Your task to perform on an android device: check the backup settings in the google photos Image 0: 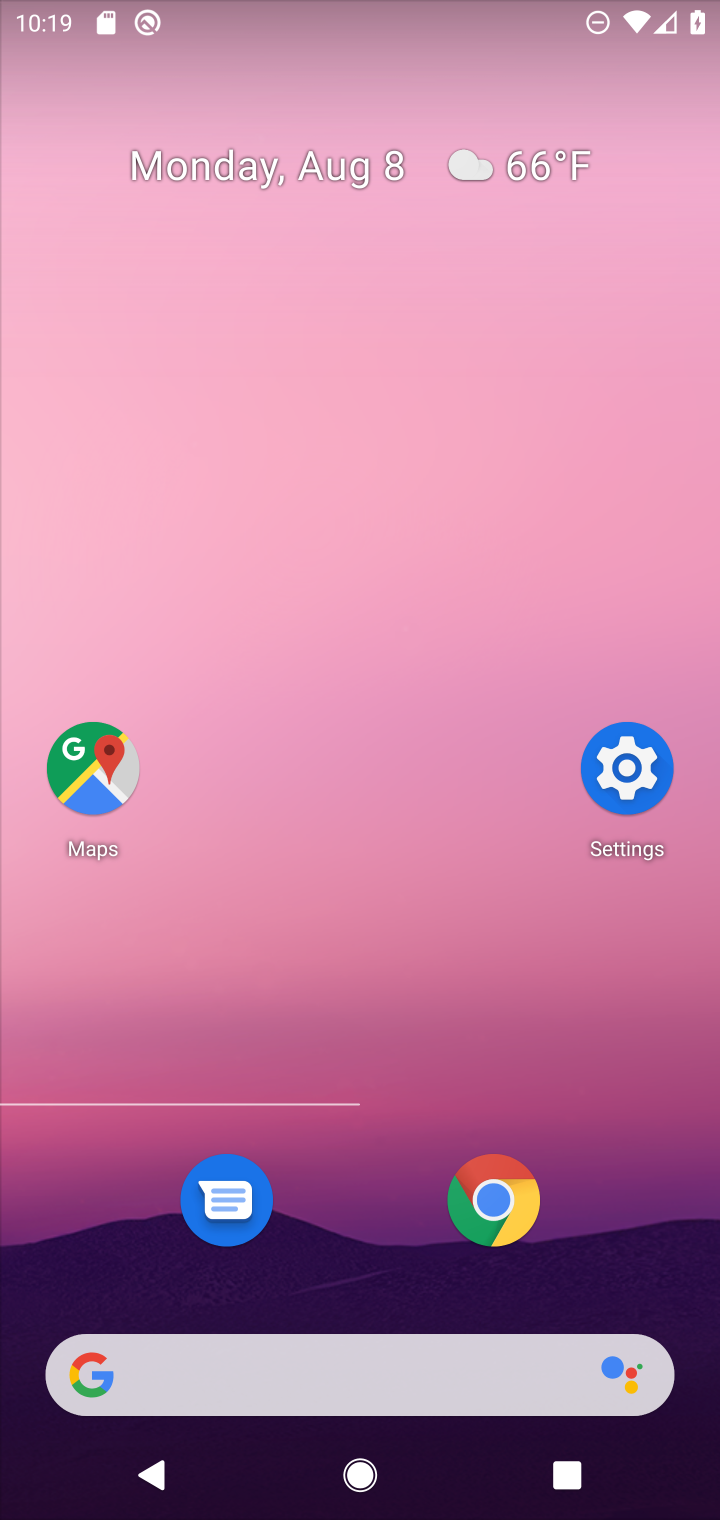
Step 0: drag from (463, 1268) to (701, 401)
Your task to perform on an android device: check the backup settings in the google photos Image 1: 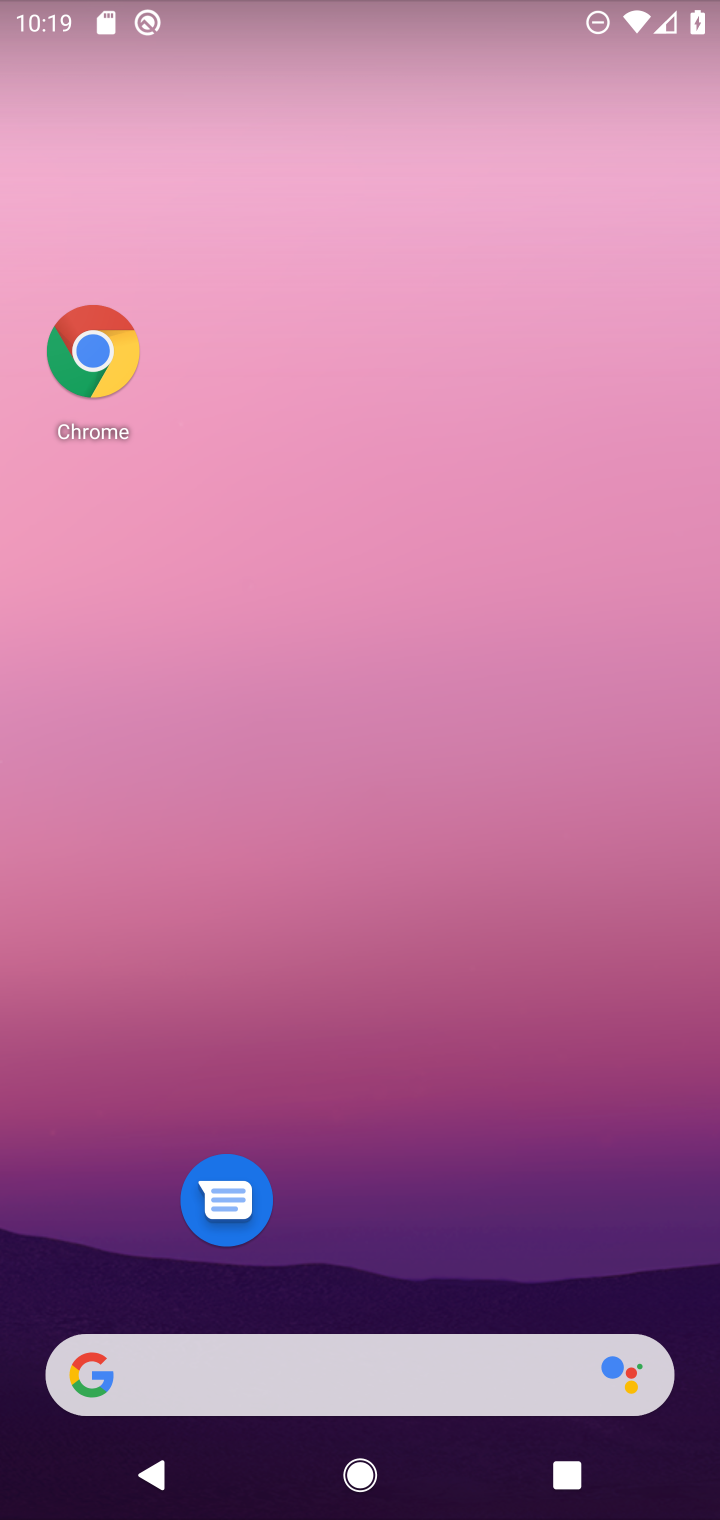
Step 1: press home button
Your task to perform on an android device: check the backup settings in the google photos Image 2: 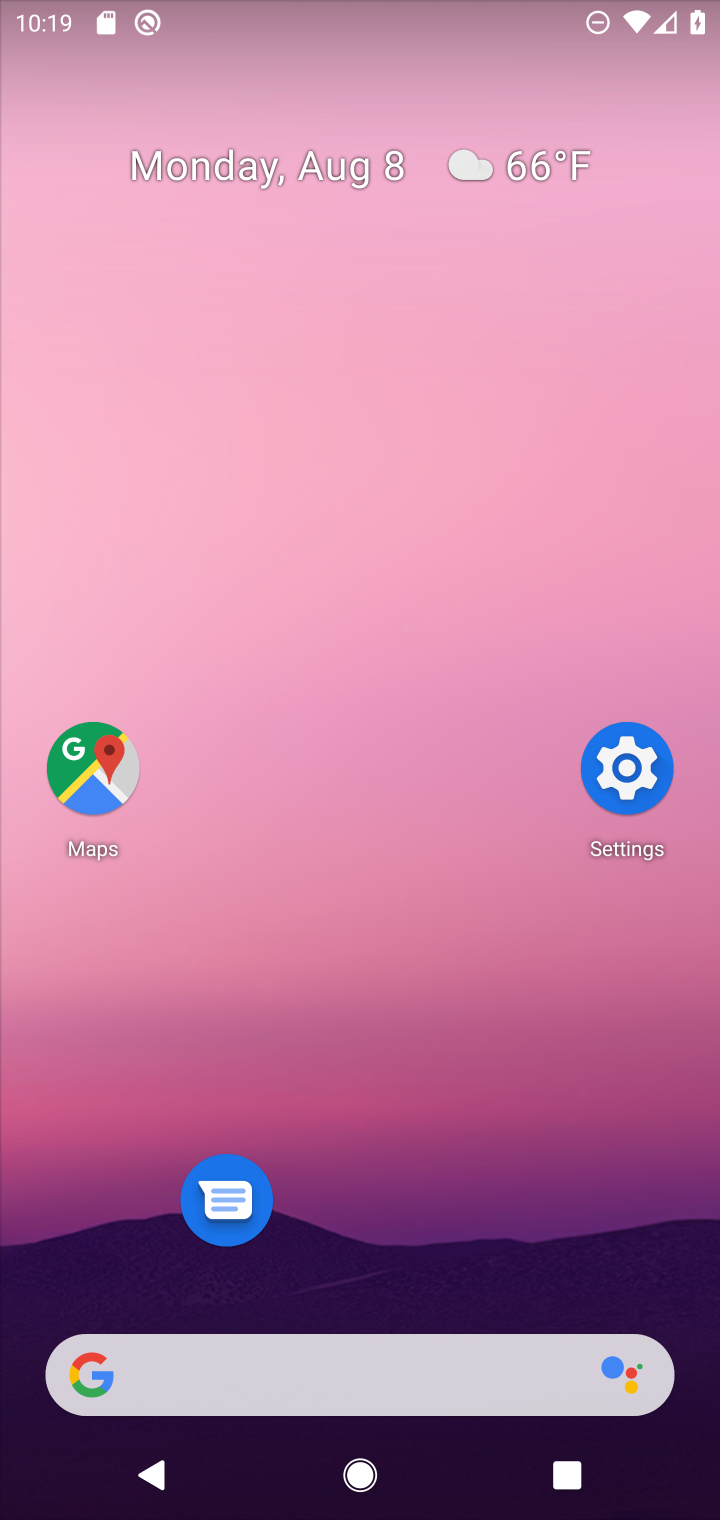
Step 2: drag from (381, 1112) to (555, 221)
Your task to perform on an android device: check the backup settings in the google photos Image 3: 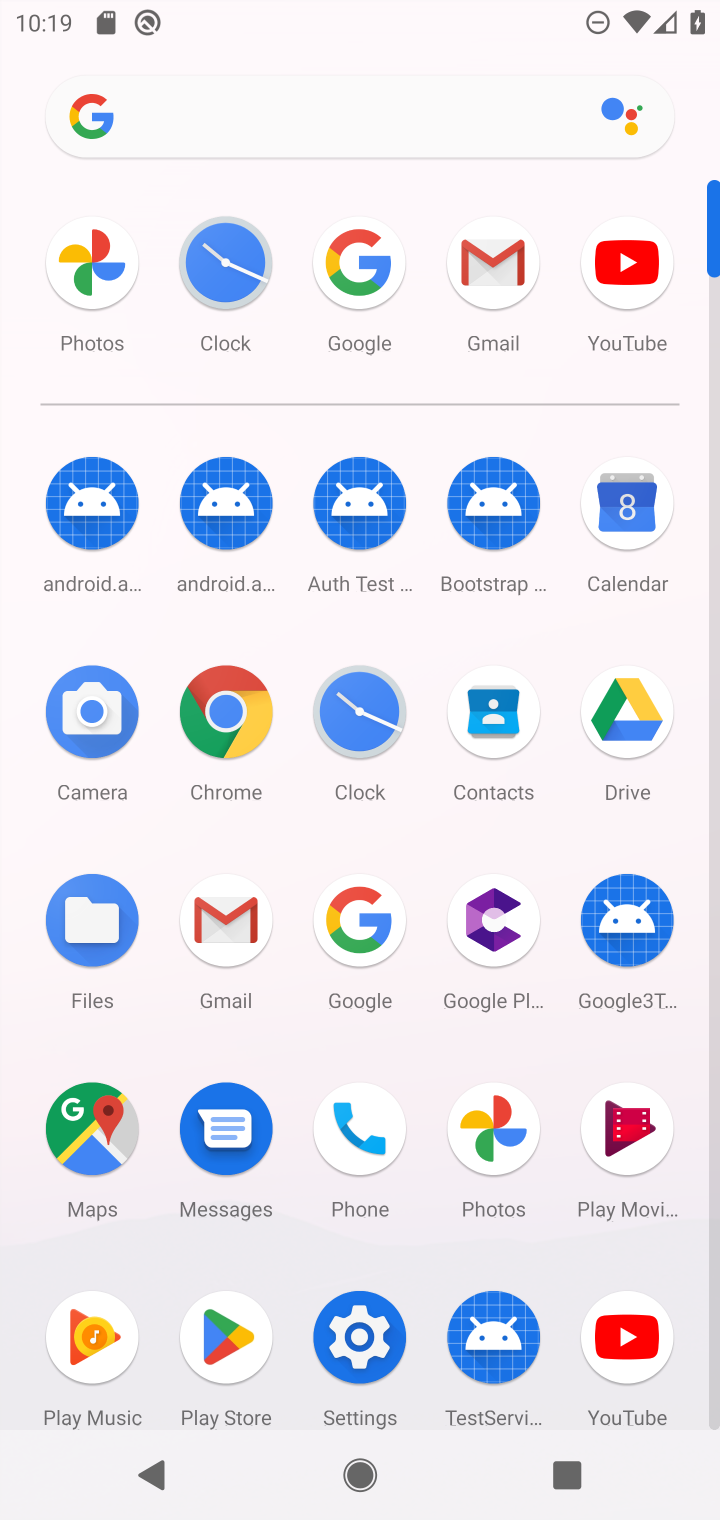
Step 3: click (474, 1136)
Your task to perform on an android device: check the backup settings in the google photos Image 4: 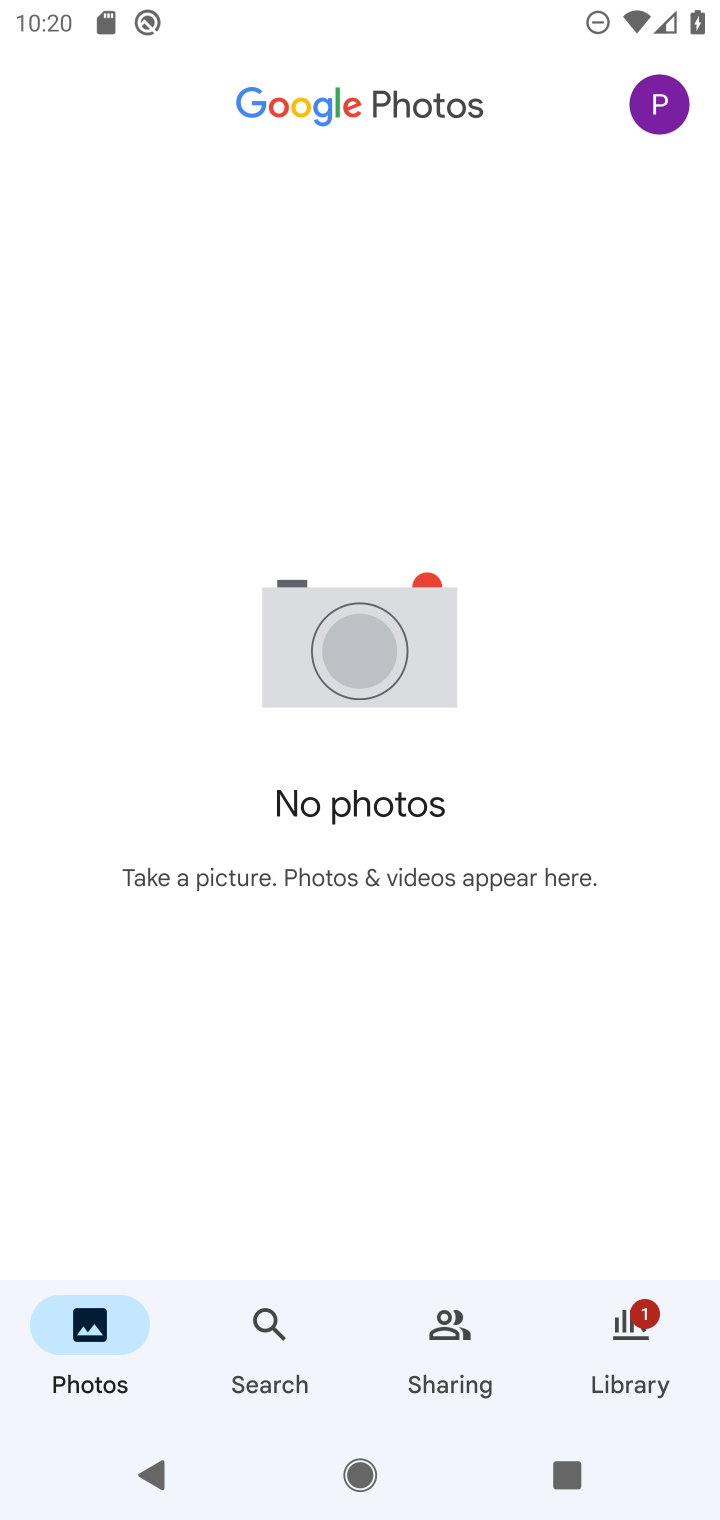
Step 4: click (663, 102)
Your task to perform on an android device: check the backup settings in the google photos Image 5: 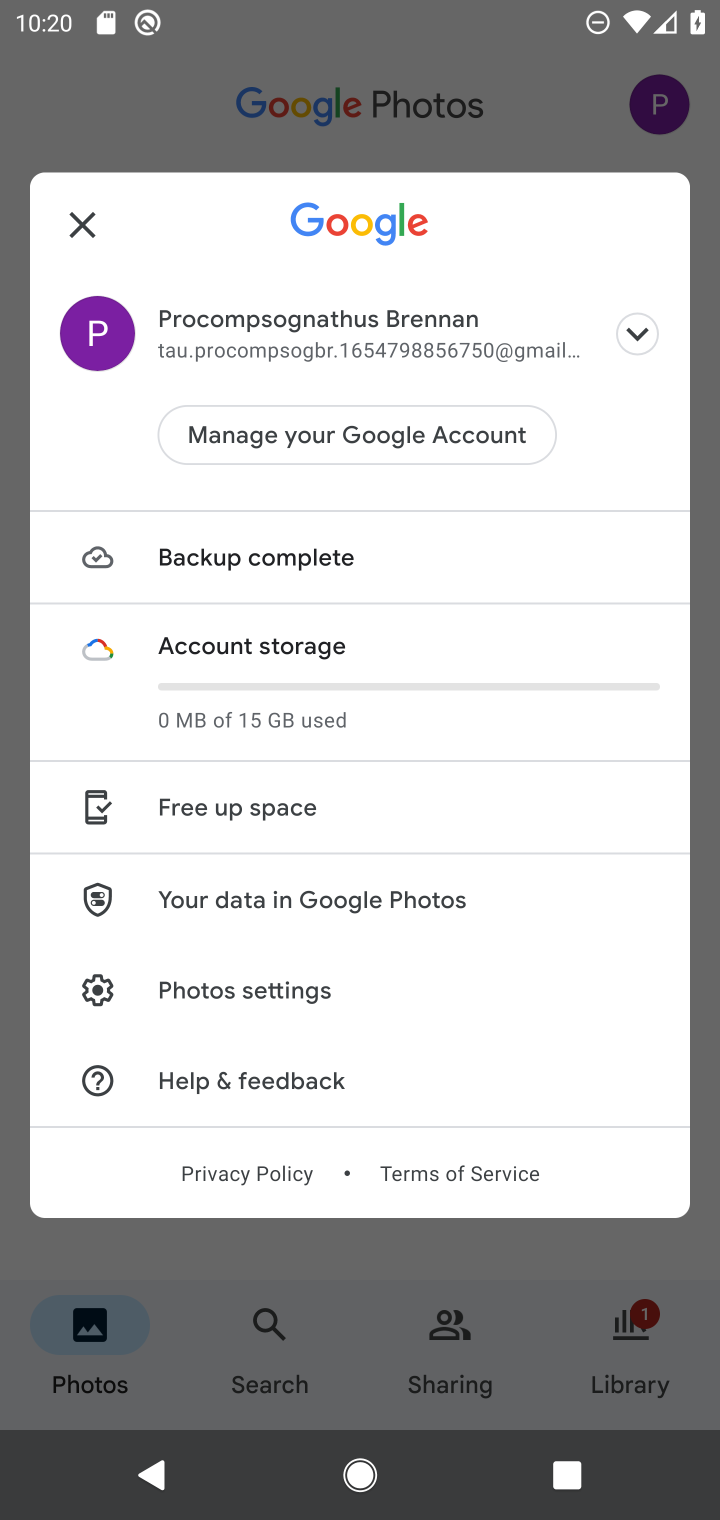
Step 5: click (236, 988)
Your task to perform on an android device: check the backup settings in the google photos Image 6: 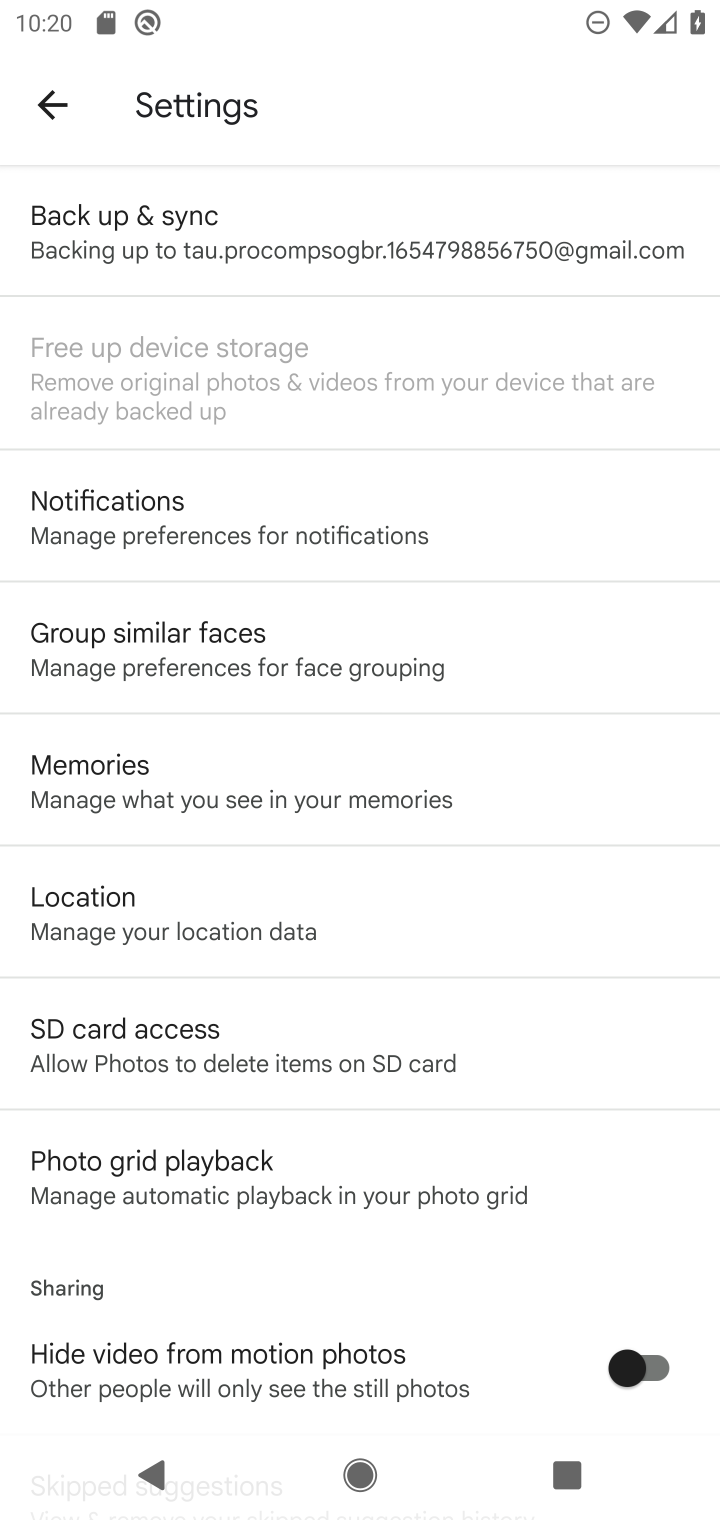
Step 6: click (160, 313)
Your task to perform on an android device: check the backup settings in the google photos Image 7: 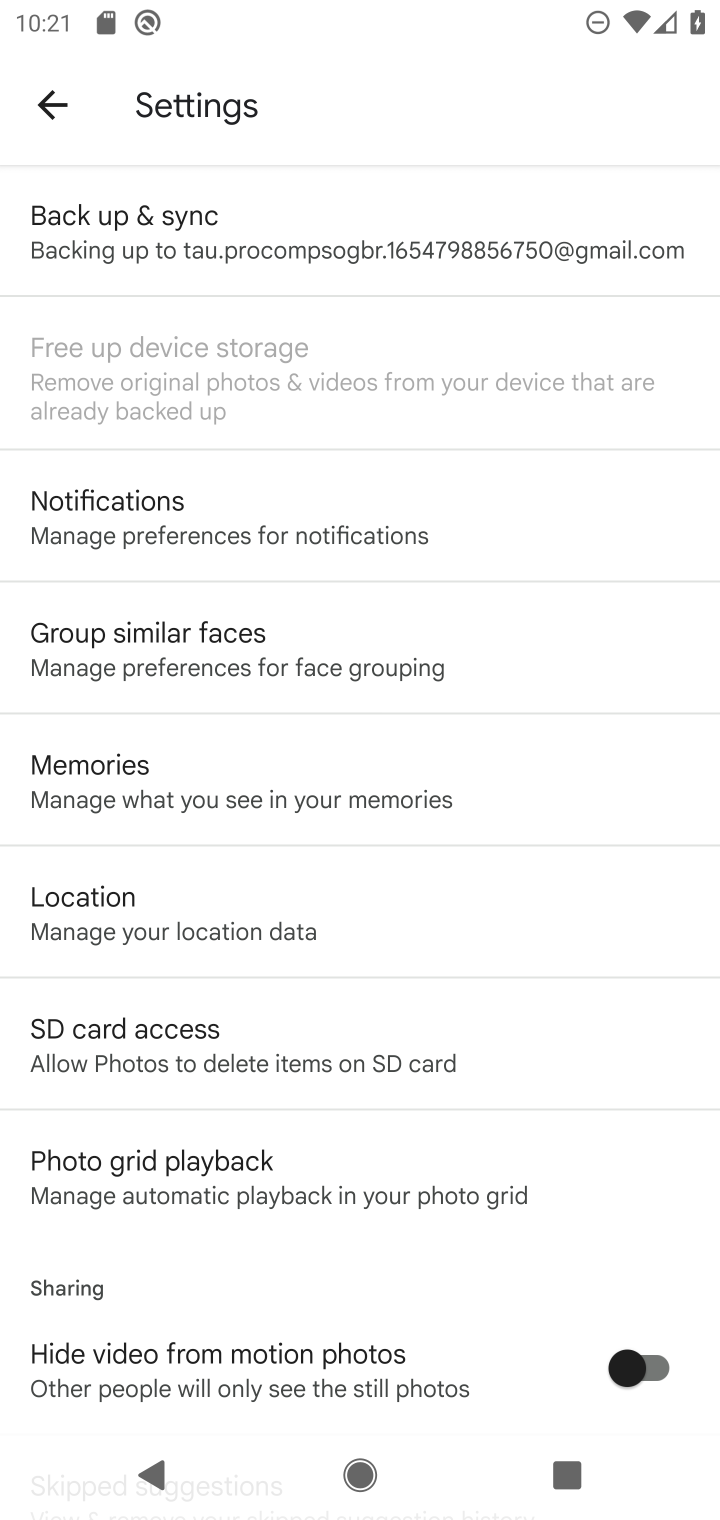
Step 7: click (320, 257)
Your task to perform on an android device: check the backup settings in the google photos Image 8: 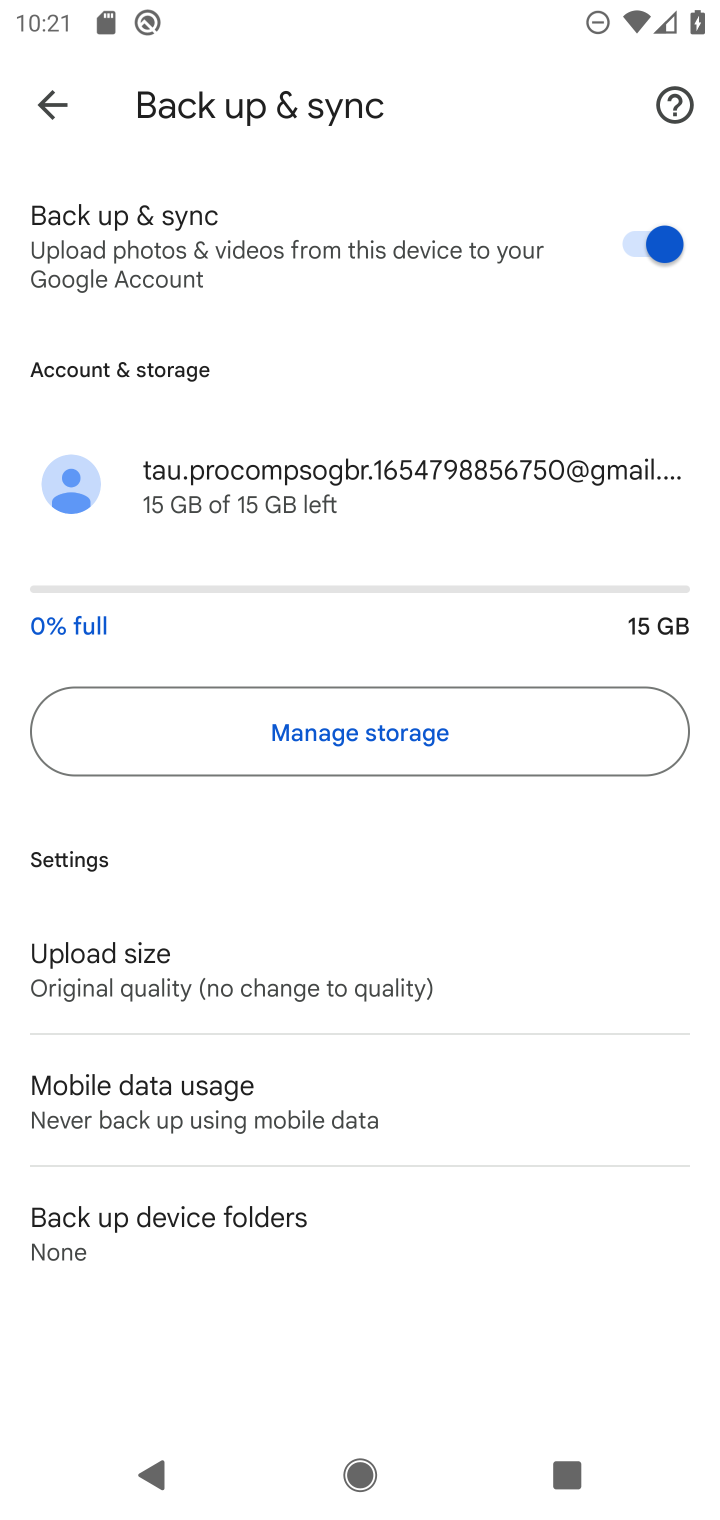
Step 8: task complete